Your task to perform on an android device: toggle wifi Image 0: 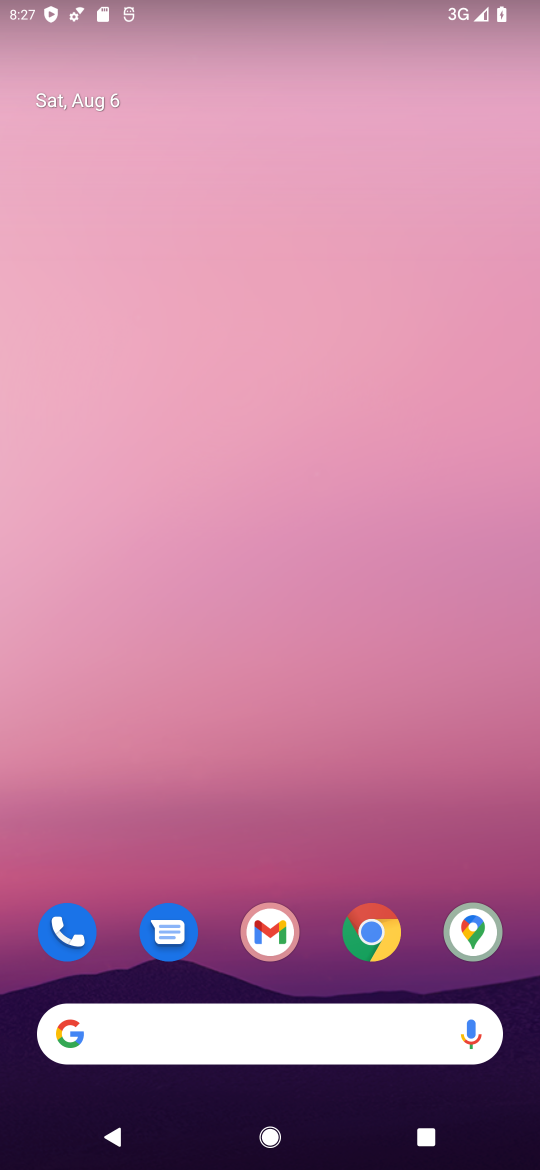
Step 0: drag from (253, 1038) to (248, 413)
Your task to perform on an android device: toggle wifi Image 1: 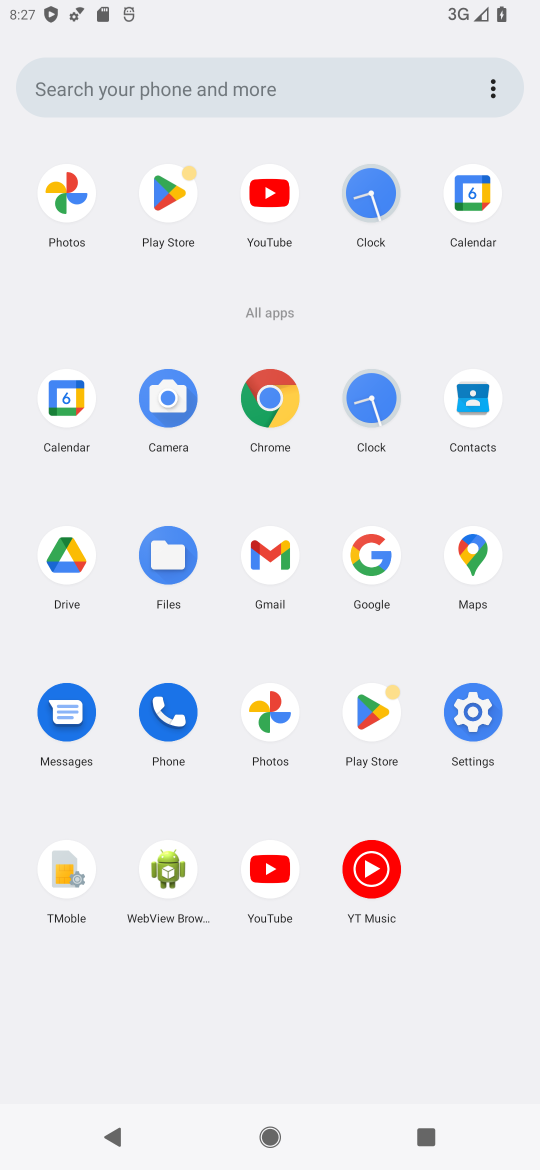
Step 1: click (472, 708)
Your task to perform on an android device: toggle wifi Image 2: 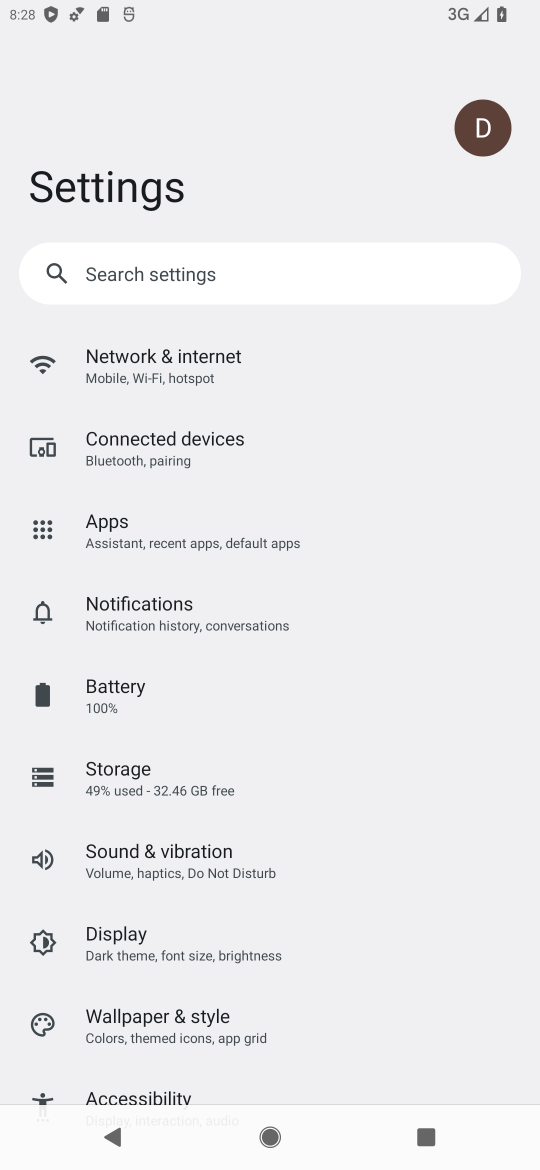
Step 2: click (144, 366)
Your task to perform on an android device: toggle wifi Image 3: 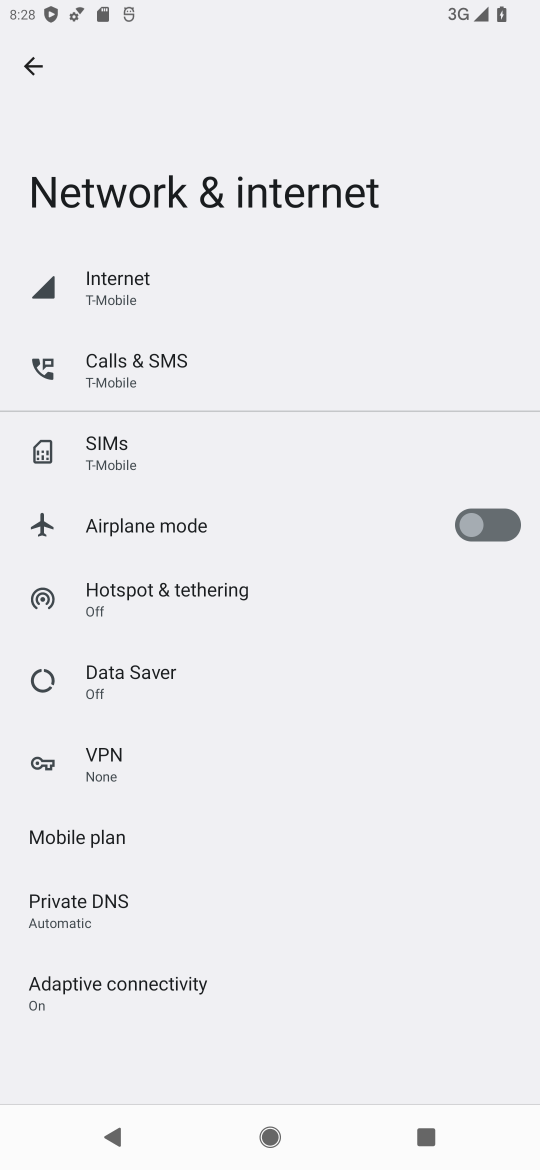
Step 3: click (121, 288)
Your task to perform on an android device: toggle wifi Image 4: 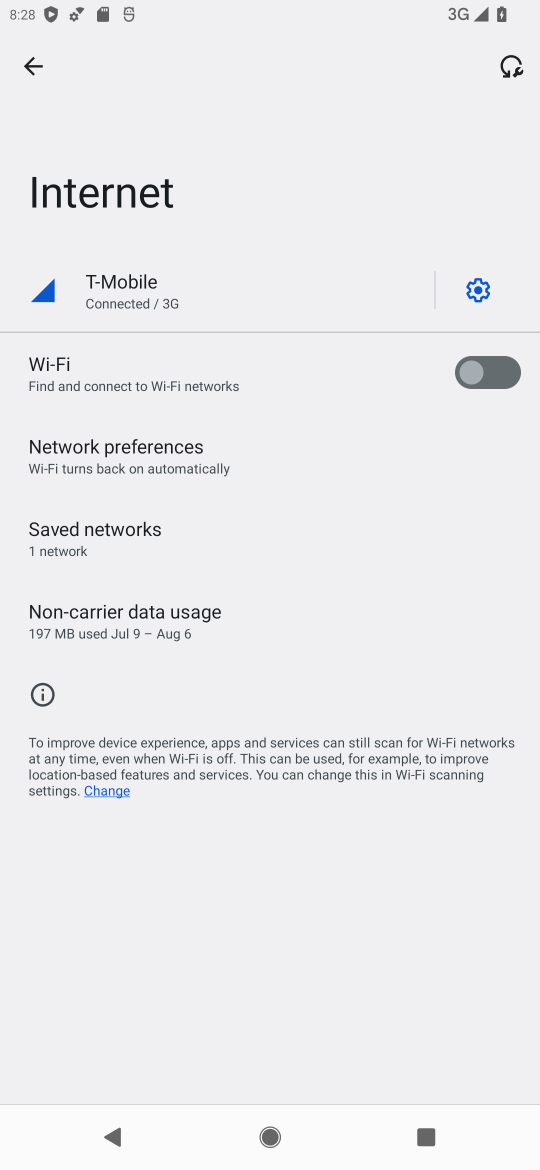
Step 4: click (473, 369)
Your task to perform on an android device: toggle wifi Image 5: 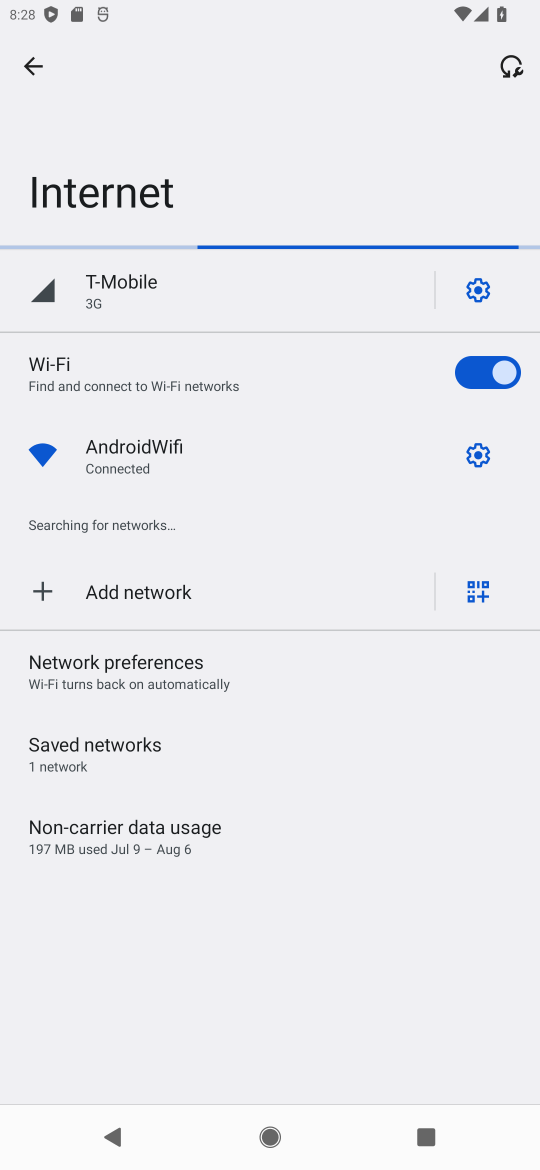
Step 5: task complete